Your task to perform on an android device: Go to CNN.com Image 0: 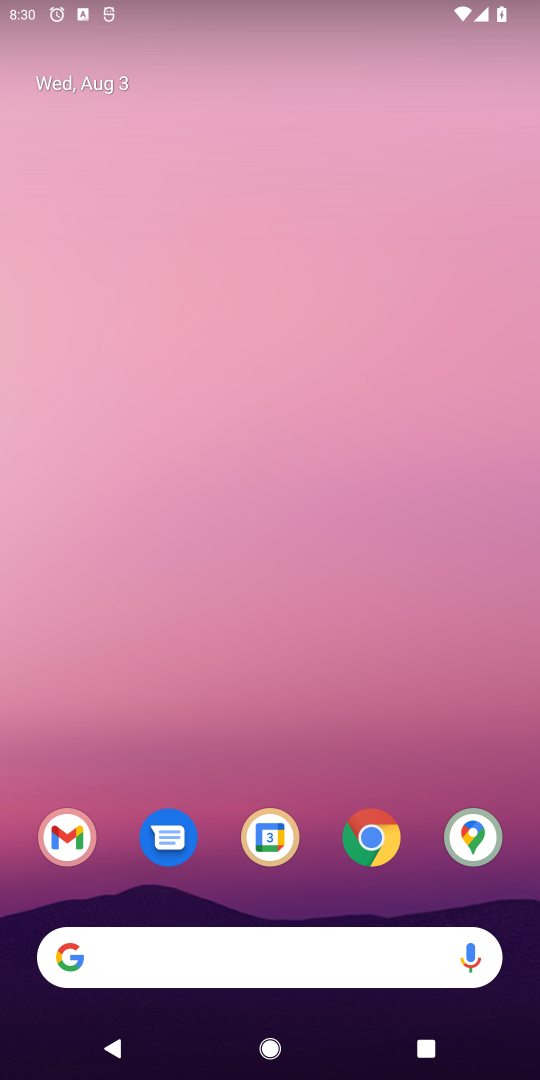
Step 0: press home button
Your task to perform on an android device: Go to CNN.com Image 1: 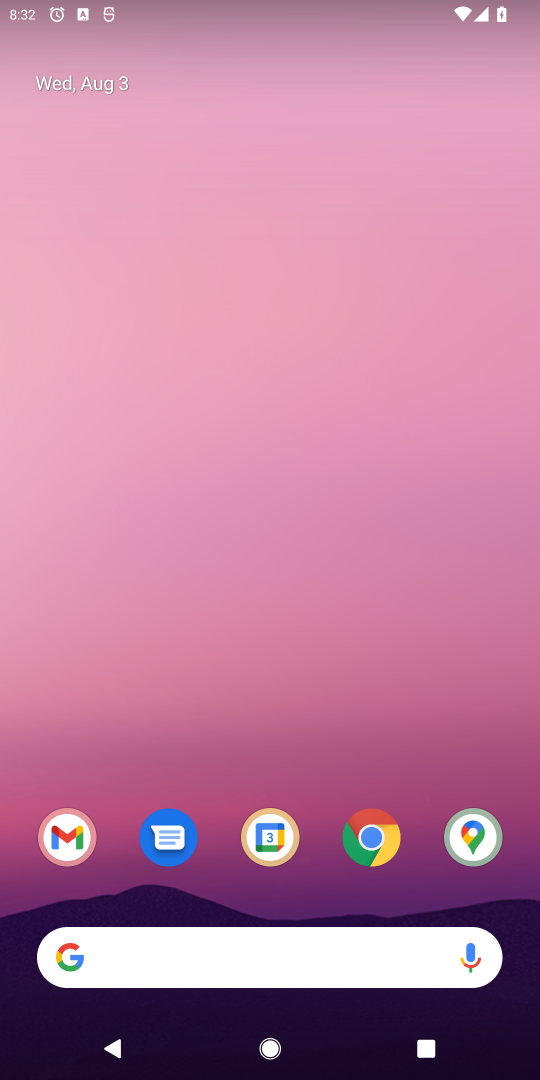
Step 1: type "CNN.com"
Your task to perform on an android device: Go to CNN.com Image 2: 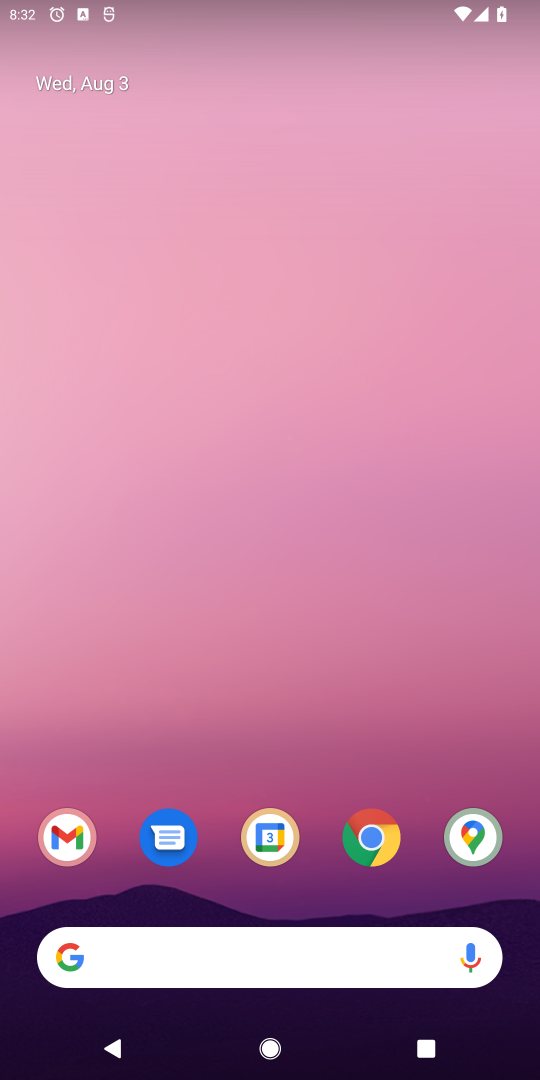
Step 2: click (69, 952)
Your task to perform on an android device: Go to CNN.com Image 3: 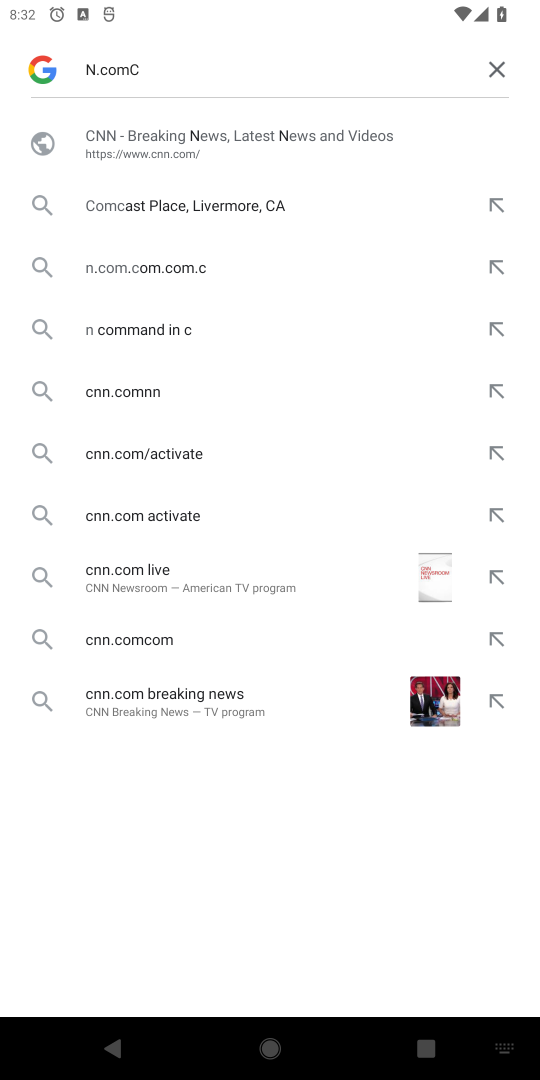
Step 3: click (499, 70)
Your task to perform on an android device: Go to CNN.com Image 4: 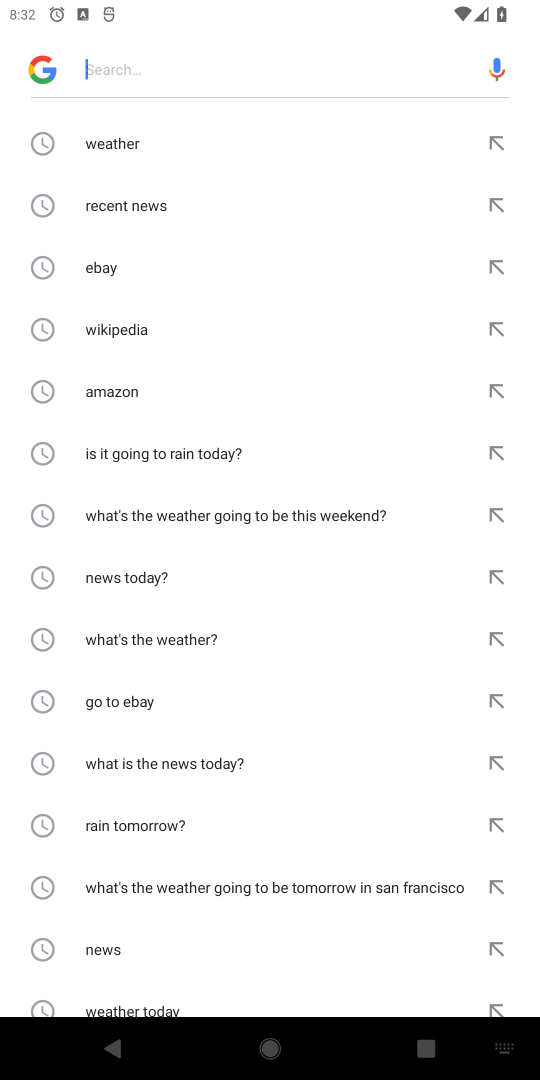
Step 4: type "CNN.com"
Your task to perform on an android device: Go to CNN.com Image 5: 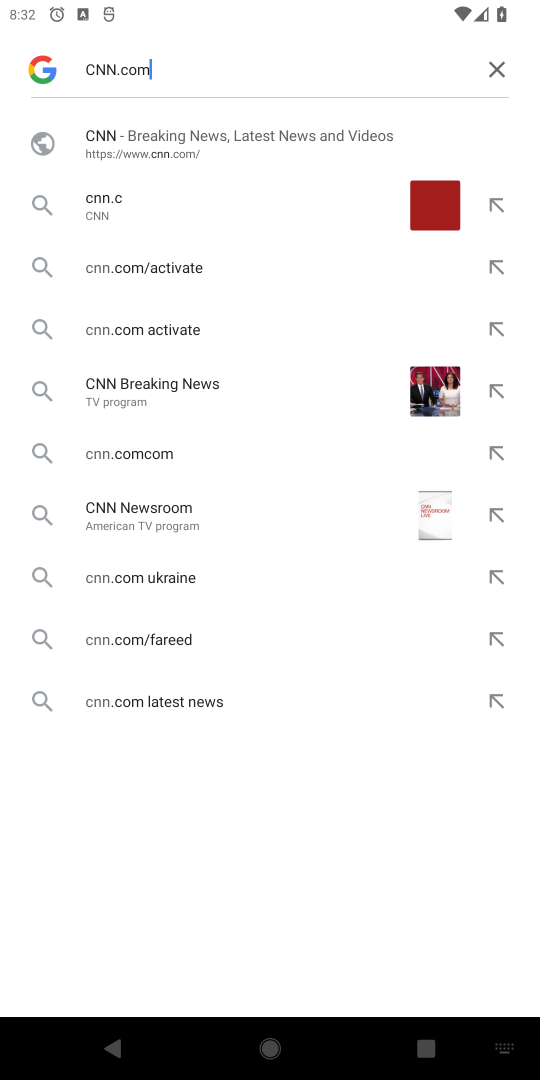
Step 5: press enter
Your task to perform on an android device: Go to CNN.com Image 6: 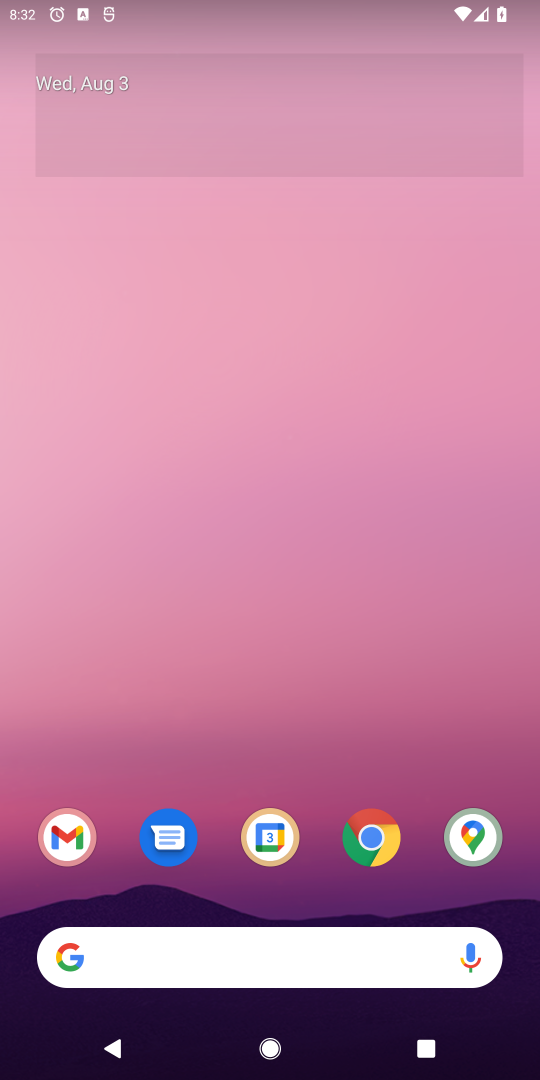
Step 6: click (75, 952)
Your task to perform on an android device: Go to CNN.com Image 7: 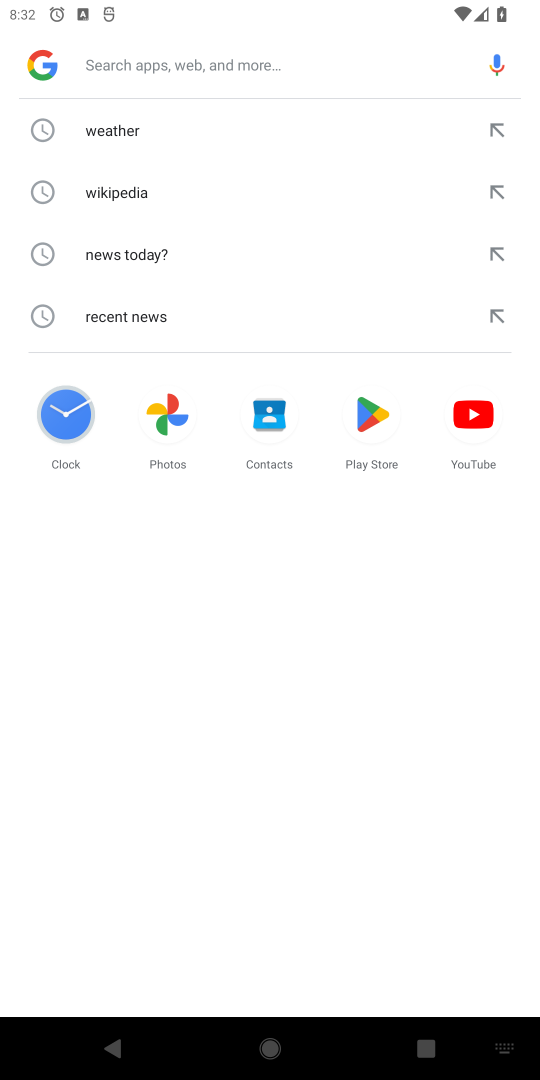
Step 7: press enter
Your task to perform on an android device: Go to CNN.com Image 8: 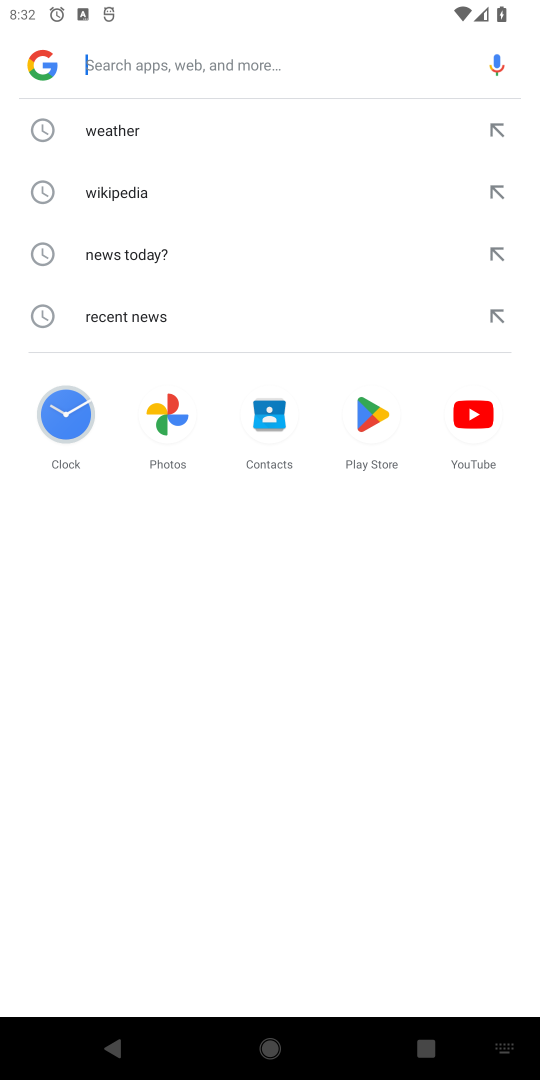
Step 8: type "CNN.com"
Your task to perform on an android device: Go to CNN.com Image 9: 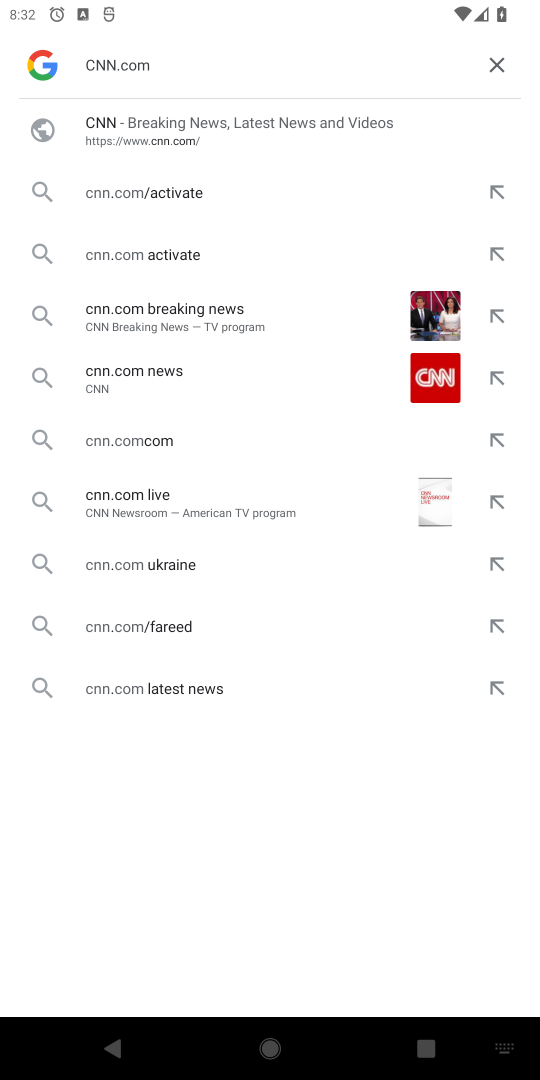
Step 9: click (234, 125)
Your task to perform on an android device: Go to CNN.com Image 10: 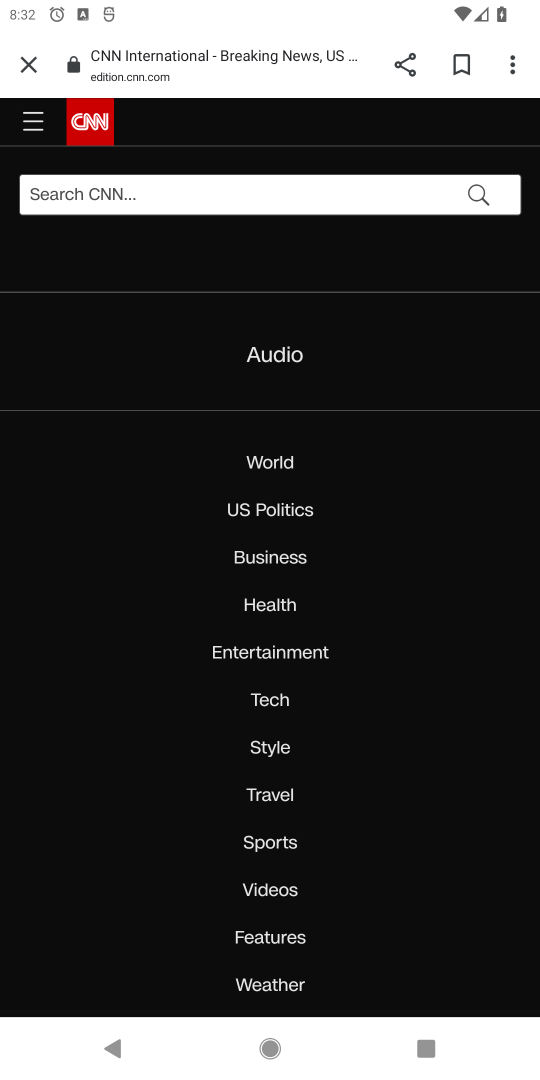
Step 10: task complete